Your task to perform on an android device: toggle location history Image 0: 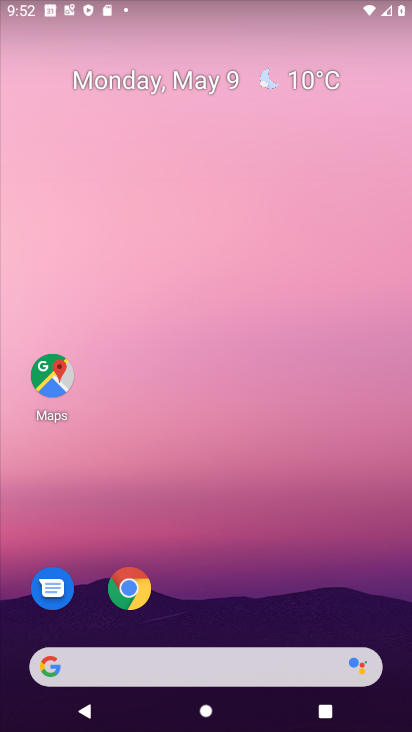
Step 0: press home button
Your task to perform on an android device: toggle location history Image 1: 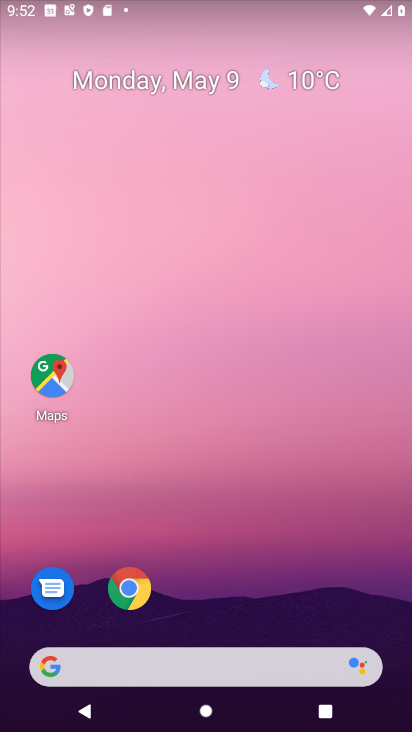
Step 1: drag from (164, 666) to (325, 1)
Your task to perform on an android device: toggle location history Image 2: 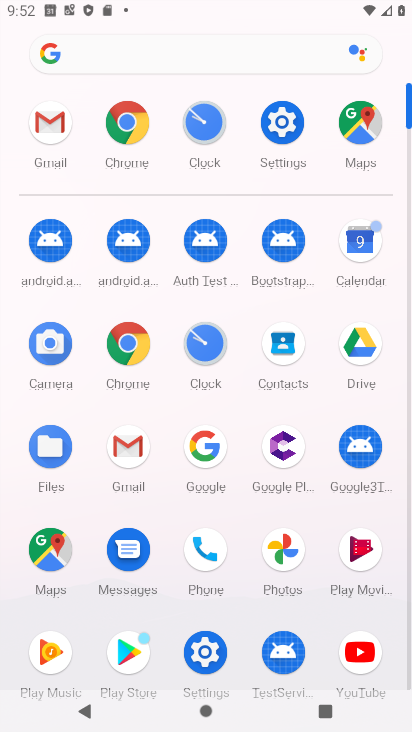
Step 2: click (274, 131)
Your task to perform on an android device: toggle location history Image 3: 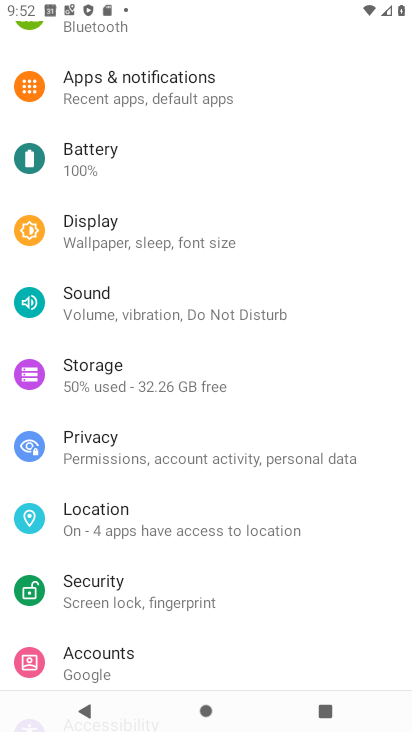
Step 3: click (138, 518)
Your task to perform on an android device: toggle location history Image 4: 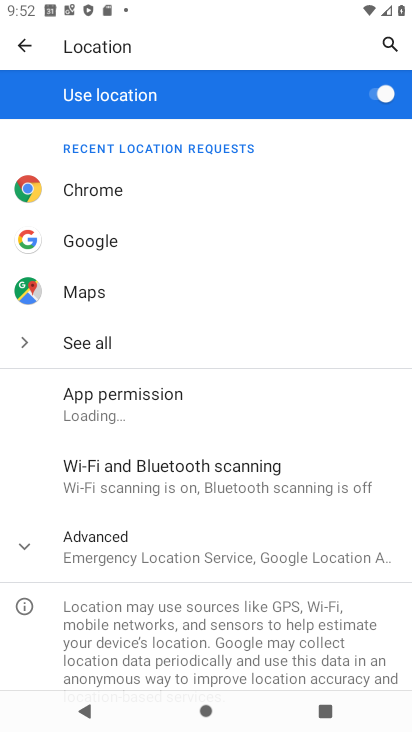
Step 4: click (117, 540)
Your task to perform on an android device: toggle location history Image 5: 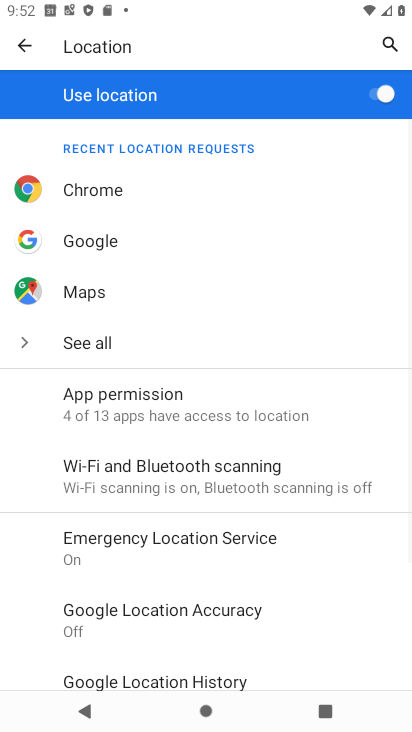
Step 5: drag from (225, 549) to (335, 208)
Your task to perform on an android device: toggle location history Image 6: 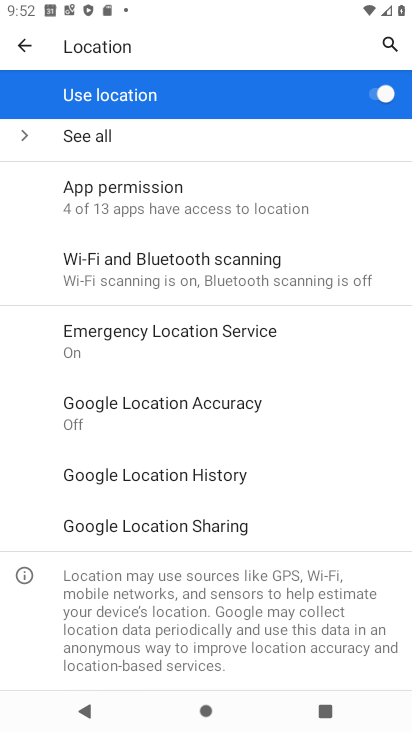
Step 6: click (219, 471)
Your task to perform on an android device: toggle location history Image 7: 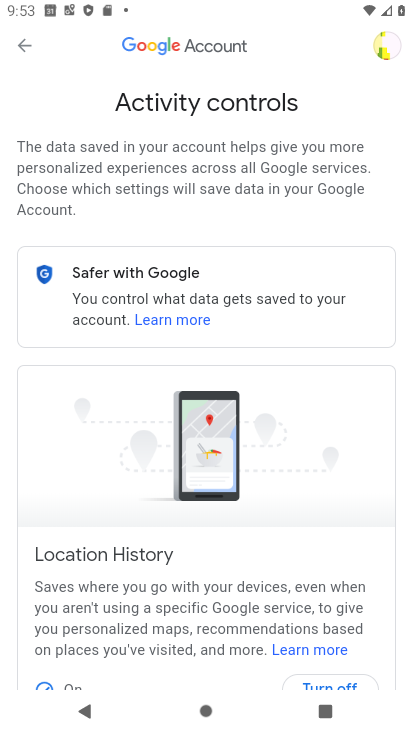
Step 7: drag from (219, 552) to (344, 150)
Your task to perform on an android device: toggle location history Image 8: 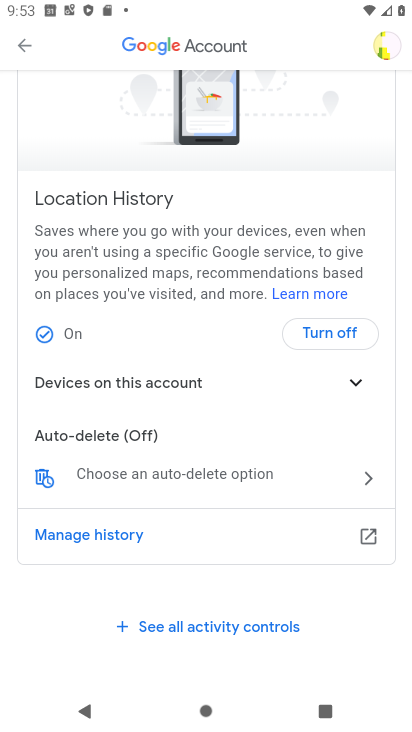
Step 8: click (331, 339)
Your task to perform on an android device: toggle location history Image 9: 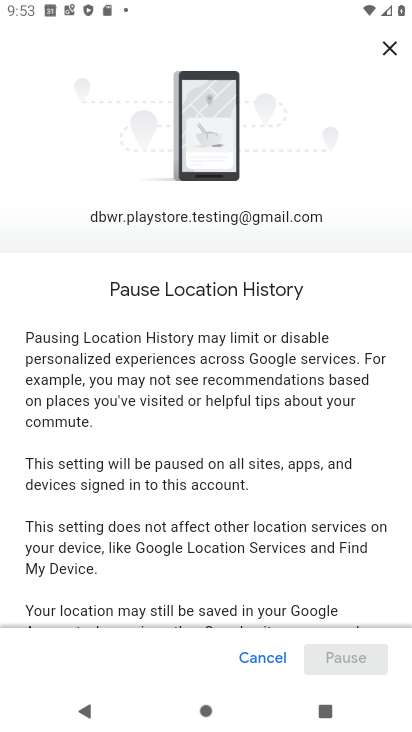
Step 9: drag from (223, 571) to (370, 95)
Your task to perform on an android device: toggle location history Image 10: 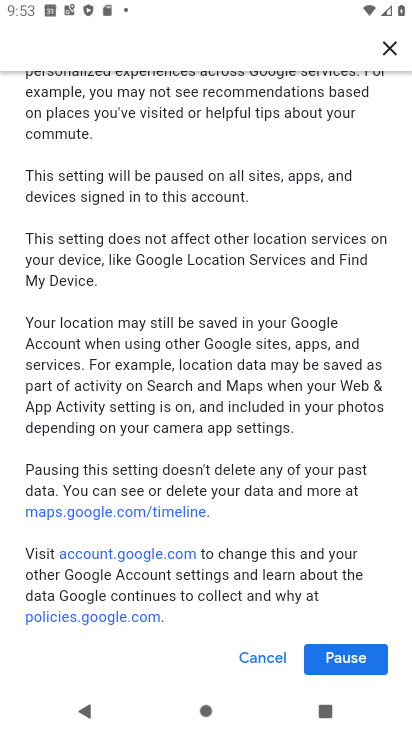
Step 10: click (355, 667)
Your task to perform on an android device: toggle location history Image 11: 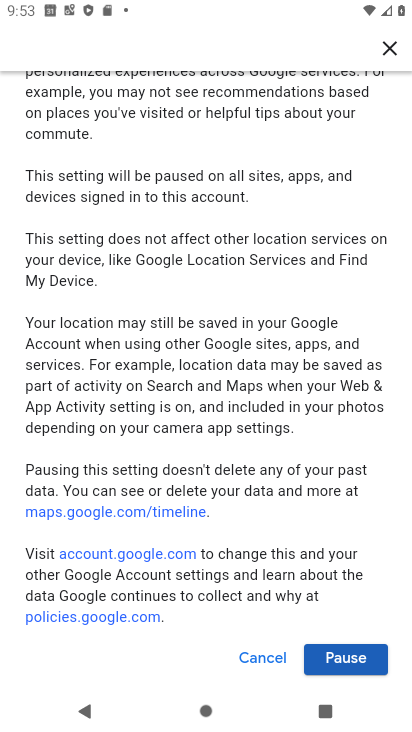
Step 11: click (345, 657)
Your task to perform on an android device: toggle location history Image 12: 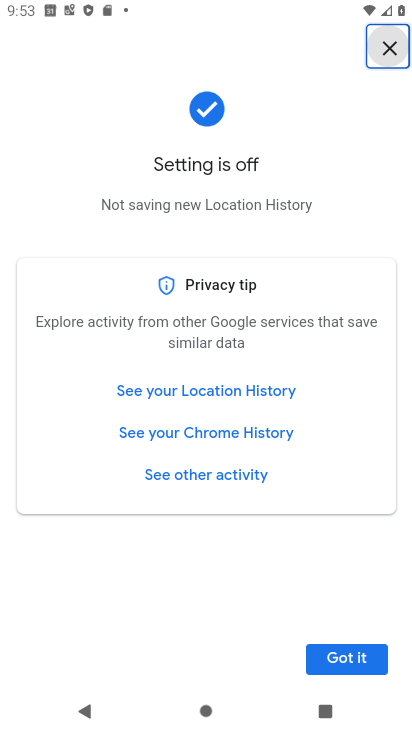
Step 12: click (352, 660)
Your task to perform on an android device: toggle location history Image 13: 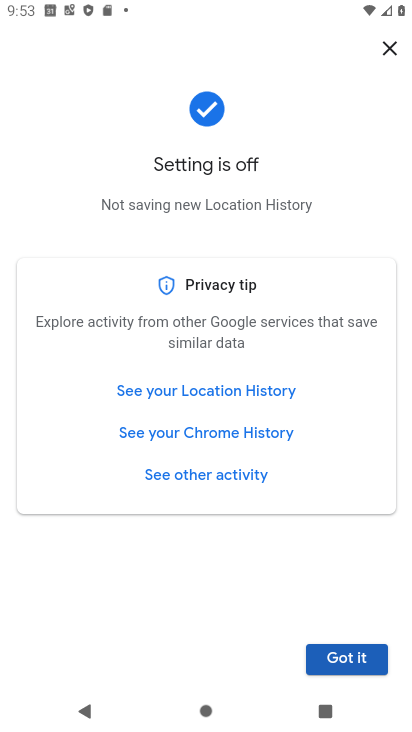
Step 13: click (367, 657)
Your task to perform on an android device: toggle location history Image 14: 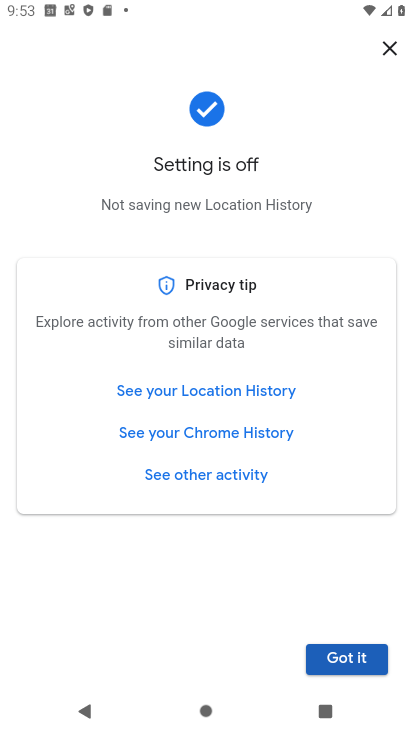
Step 14: task complete